Your task to perform on an android device: Open Youtube and go to the subscriptions tab Image 0: 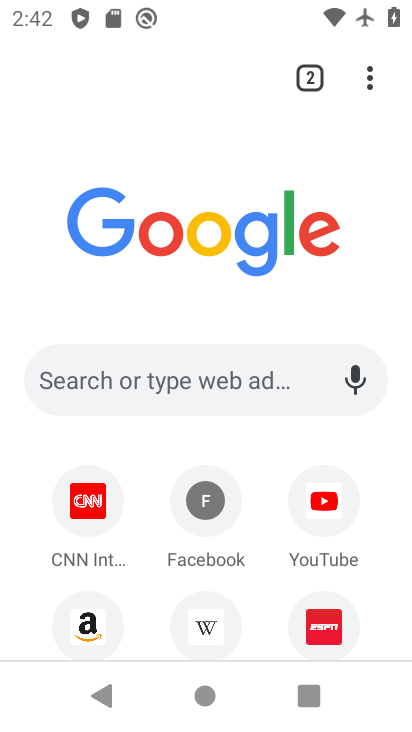
Step 0: press home button
Your task to perform on an android device: Open Youtube and go to the subscriptions tab Image 1: 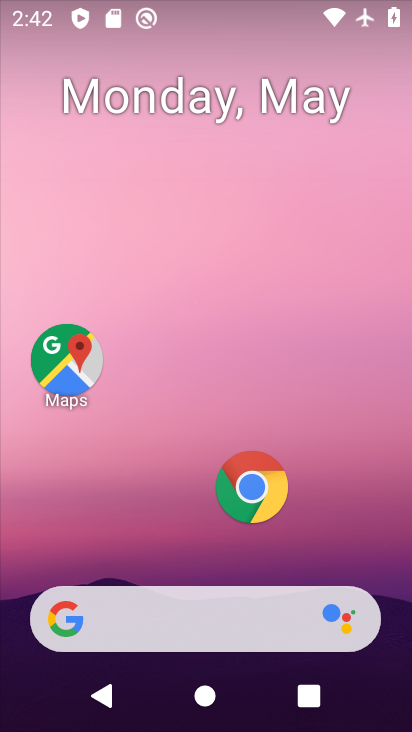
Step 1: drag from (123, 529) to (122, 10)
Your task to perform on an android device: Open Youtube and go to the subscriptions tab Image 2: 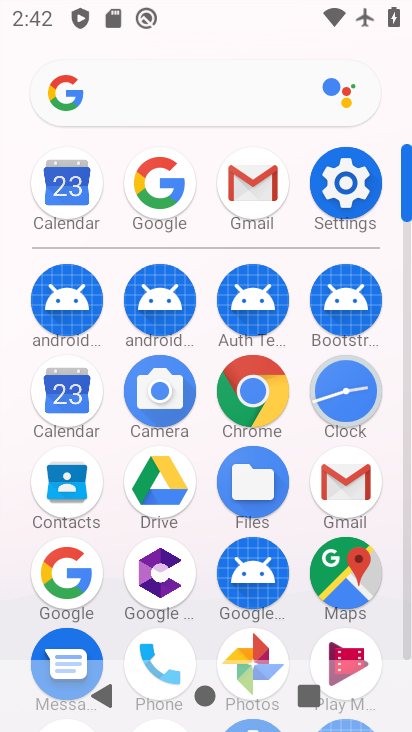
Step 2: drag from (206, 611) to (208, 341)
Your task to perform on an android device: Open Youtube and go to the subscriptions tab Image 3: 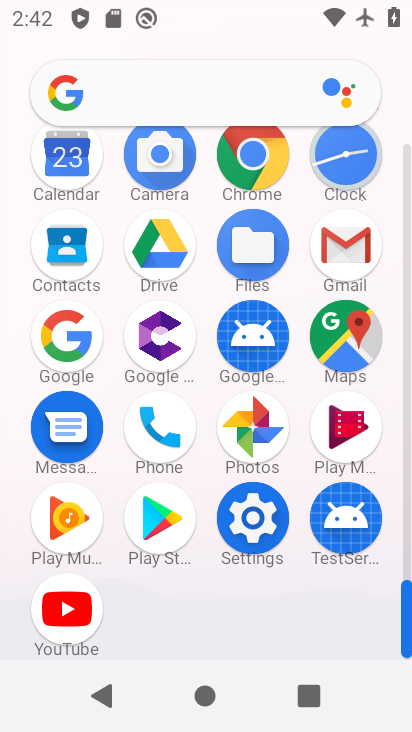
Step 3: click (76, 613)
Your task to perform on an android device: Open Youtube and go to the subscriptions tab Image 4: 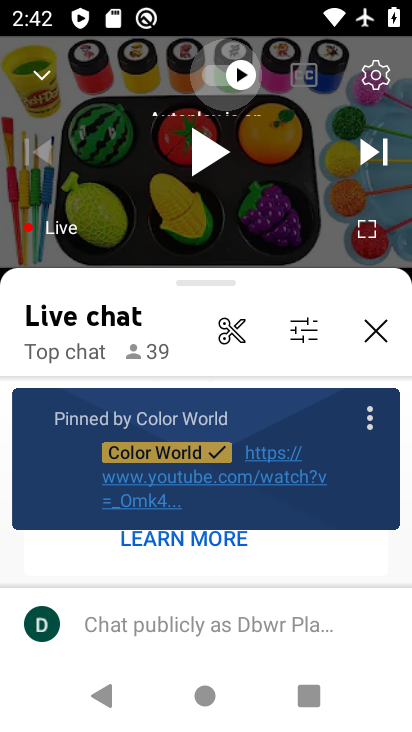
Step 4: press back button
Your task to perform on an android device: Open Youtube and go to the subscriptions tab Image 5: 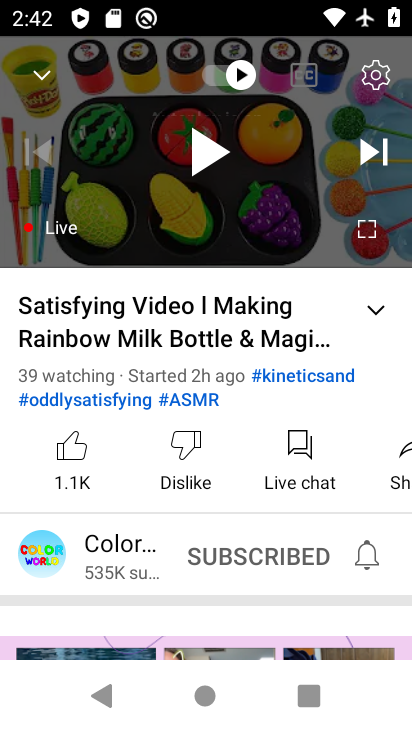
Step 5: press back button
Your task to perform on an android device: Open Youtube and go to the subscriptions tab Image 6: 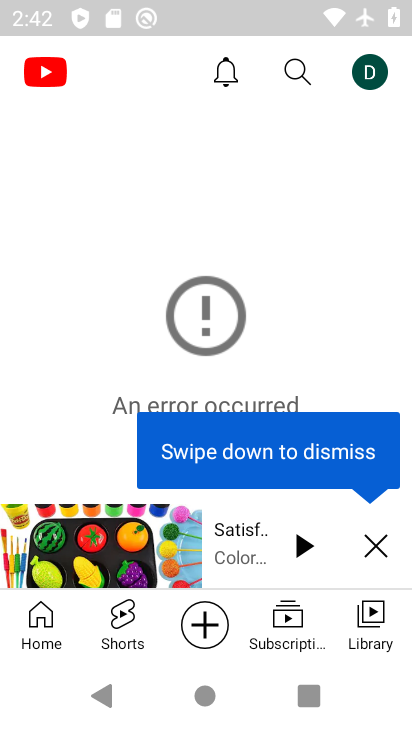
Step 6: click (260, 639)
Your task to perform on an android device: Open Youtube and go to the subscriptions tab Image 7: 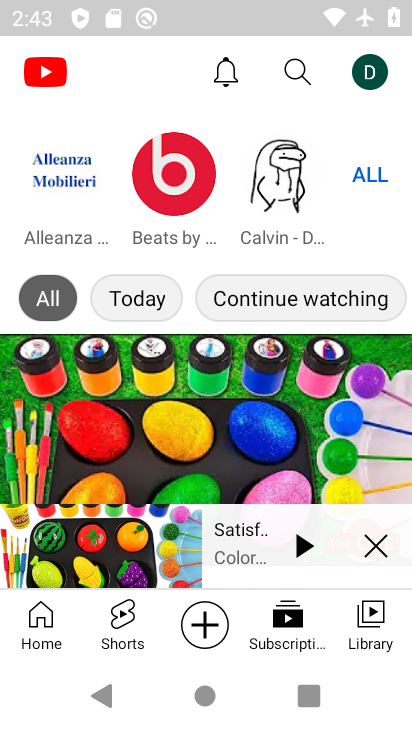
Step 7: task complete